Your task to perform on an android device: Open network settings Image 0: 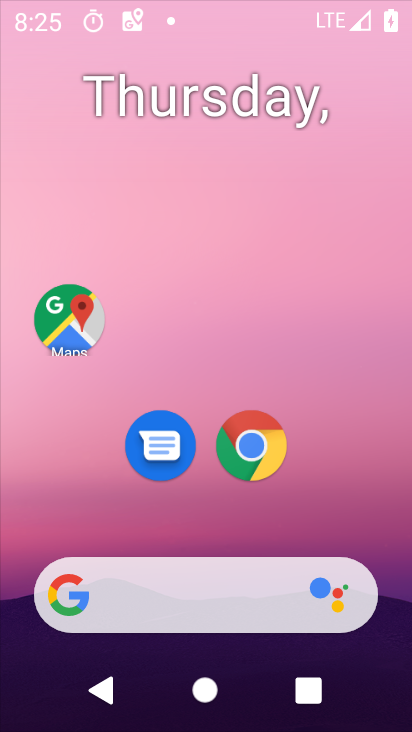
Step 0: click (407, 479)
Your task to perform on an android device: Open network settings Image 1: 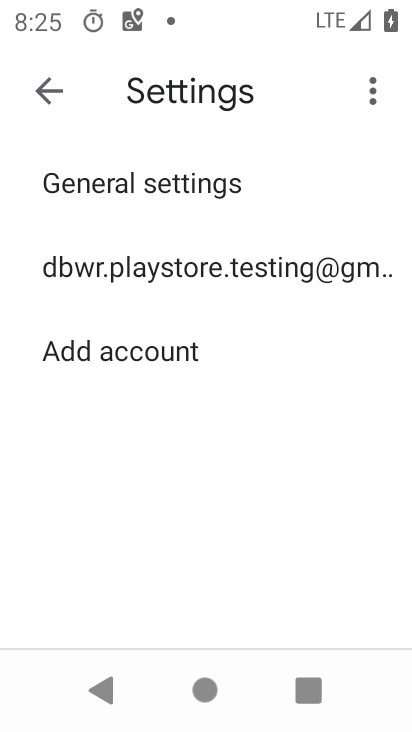
Step 1: drag from (224, 526) to (226, 174)
Your task to perform on an android device: Open network settings Image 2: 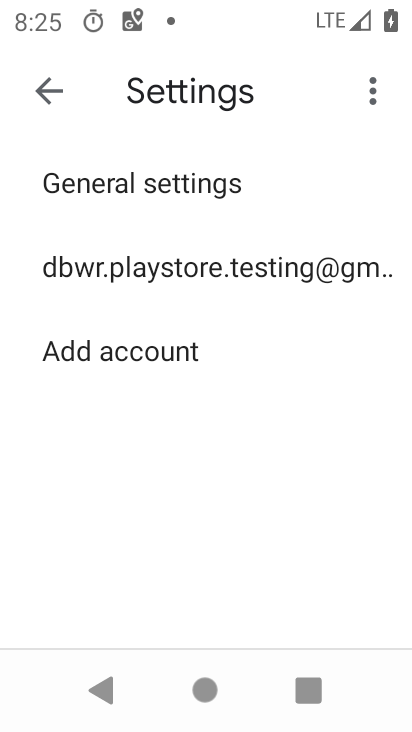
Step 2: press home button
Your task to perform on an android device: Open network settings Image 3: 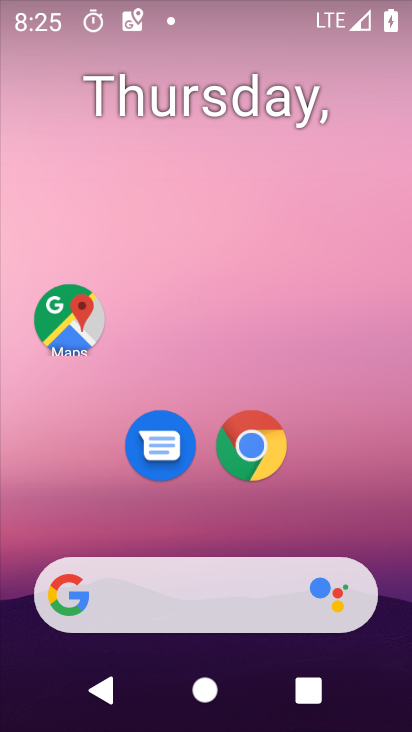
Step 3: drag from (168, 524) to (197, 172)
Your task to perform on an android device: Open network settings Image 4: 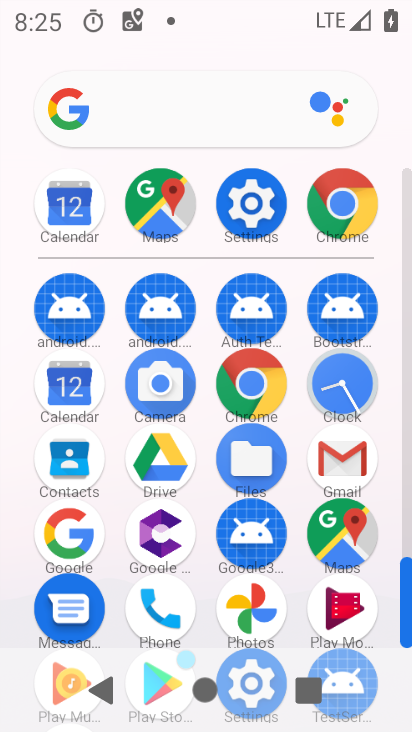
Step 4: click (263, 206)
Your task to perform on an android device: Open network settings Image 5: 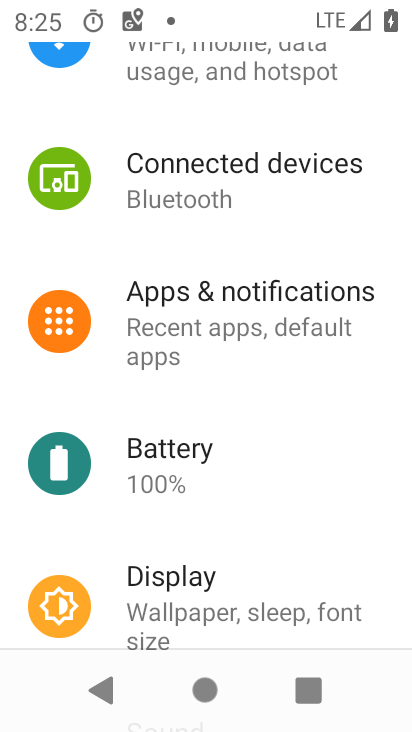
Step 5: drag from (251, 574) to (314, 222)
Your task to perform on an android device: Open network settings Image 6: 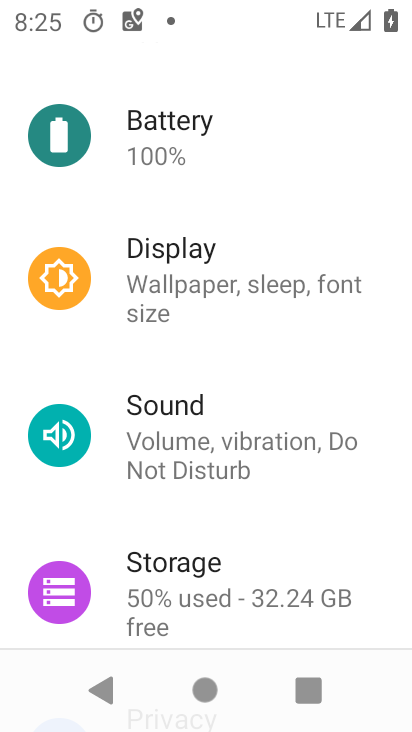
Step 6: drag from (201, 223) to (269, 729)
Your task to perform on an android device: Open network settings Image 7: 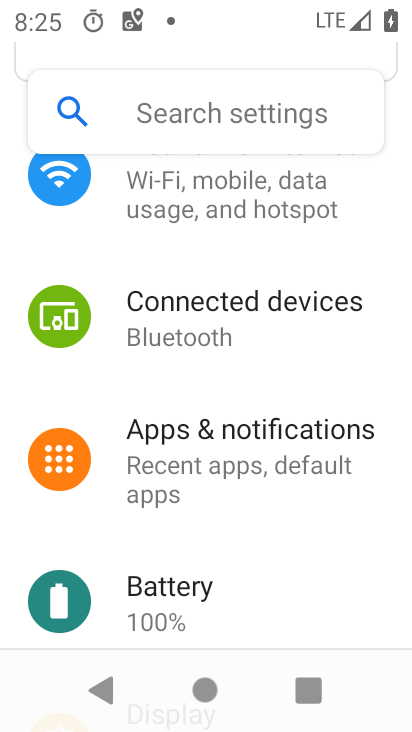
Step 7: drag from (224, 223) to (240, 536)
Your task to perform on an android device: Open network settings Image 8: 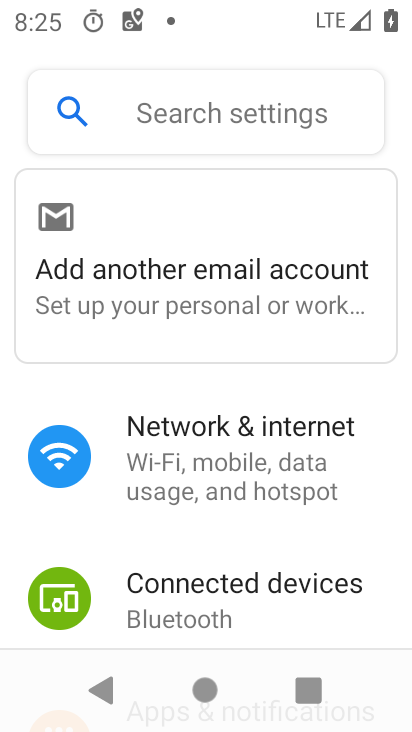
Step 8: click (178, 453)
Your task to perform on an android device: Open network settings Image 9: 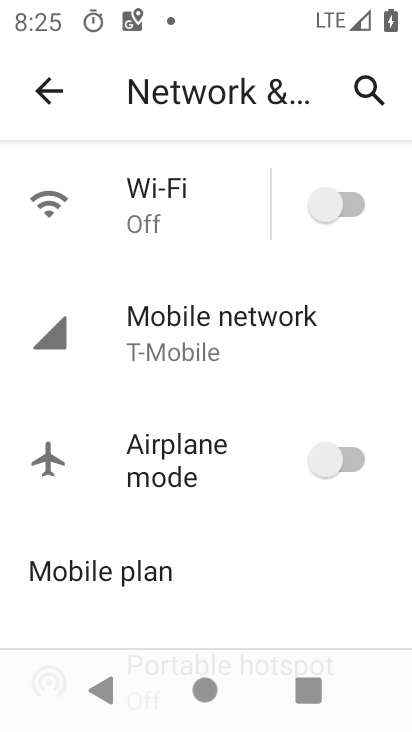
Step 9: drag from (240, 538) to (253, 352)
Your task to perform on an android device: Open network settings Image 10: 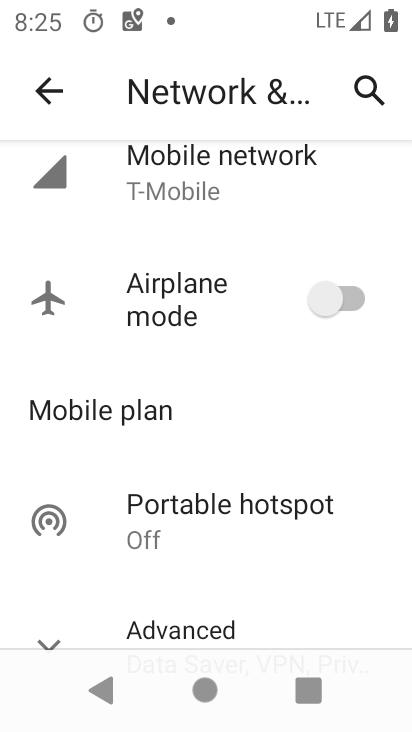
Step 10: click (238, 171)
Your task to perform on an android device: Open network settings Image 11: 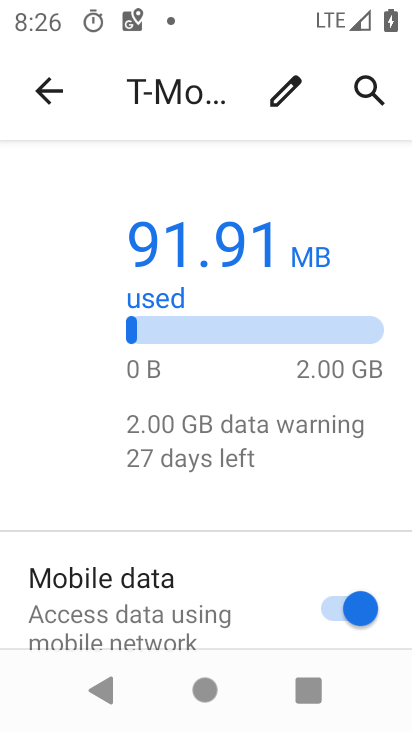
Step 11: task complete